Your task to perform on an android device: open app "WhatsApp Messenger" (install if not already installed) and go to login screen Image 0: 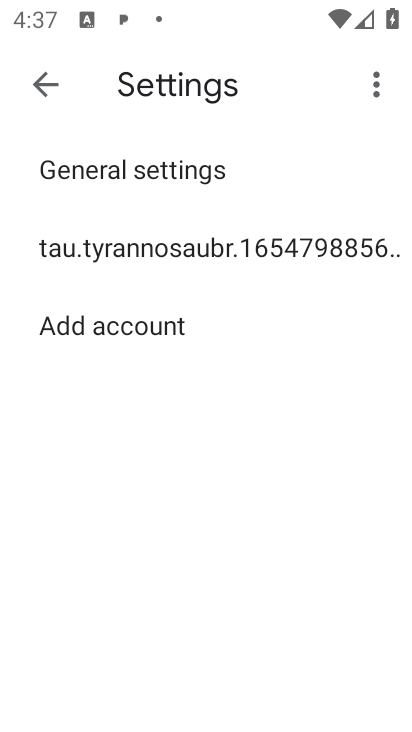
Step 0: press home button
Your task to perform on an android device: open app "WhatsApp Messenger" (install if not already installed) and go to login screen Image 1: 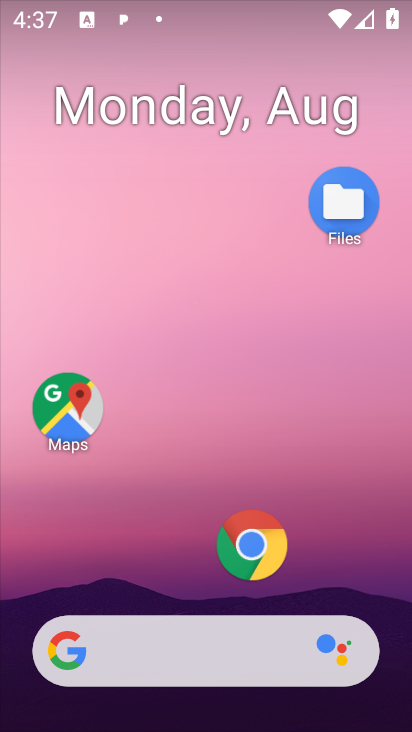
Step 1: drag from (130, 562) to (210, 34)
Your task to perform on an android device: open app "WhatsApp Messenger" (install if not already installed) and go to login screen Image 2: 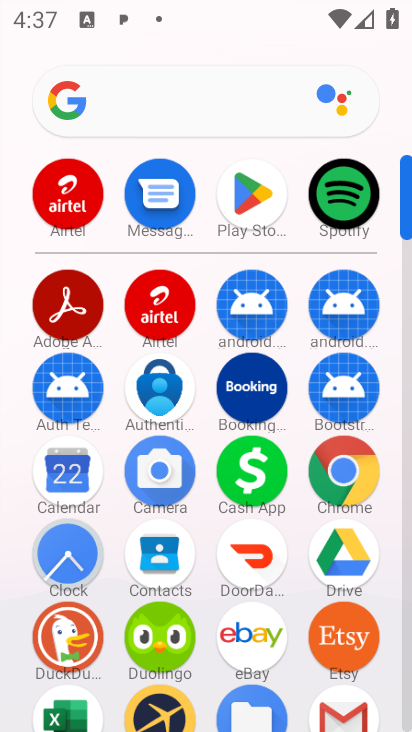
Step 2: click (264, 179)
Your task to perform on an android device: open app "WhatsApp Messenger" (install if not already installed) and go to login screen Image 3: 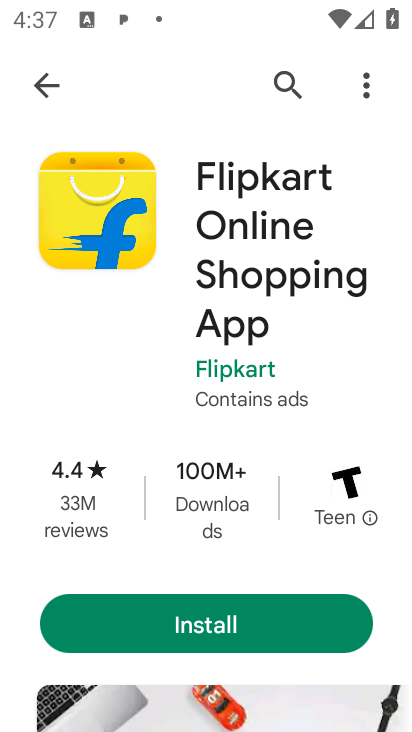
Step 3: click (286, 90)
Your task to perform on an android device: open app "WhatsApp Messenger" (install if not already installed) and go to login screen Image 4: 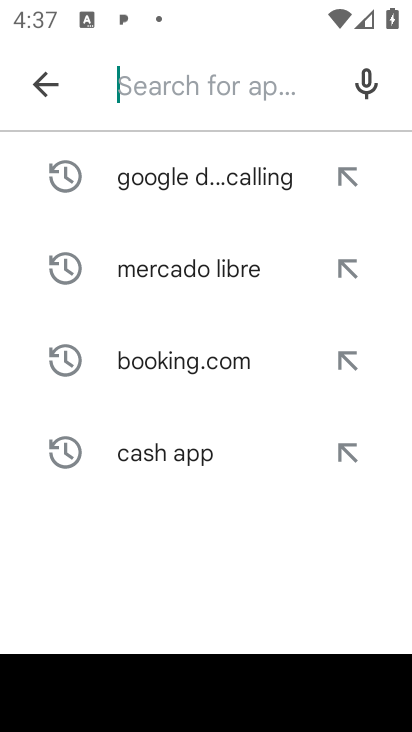
Step 4: click (210, 75)
Your task to perform on an android device: open app "WhatsApp Messenger" (install if not already installed) and go to login screen Image 5: 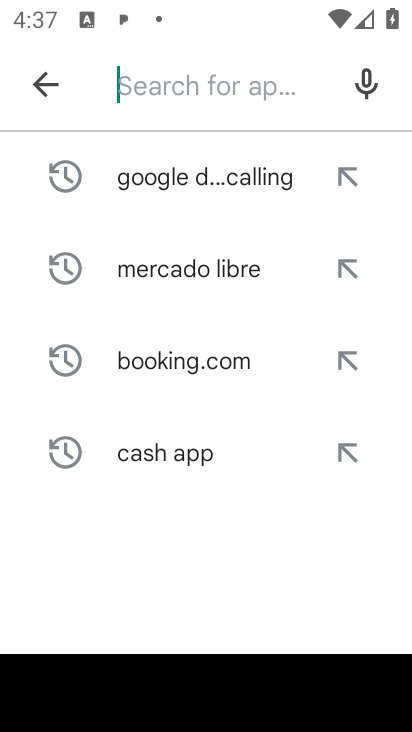
Step 5: type "WhatsApp Messenger"
Your task to perform on an android device: open app "WhatsApp Messenger" (install if not already installed) and go to login screen Image 6: 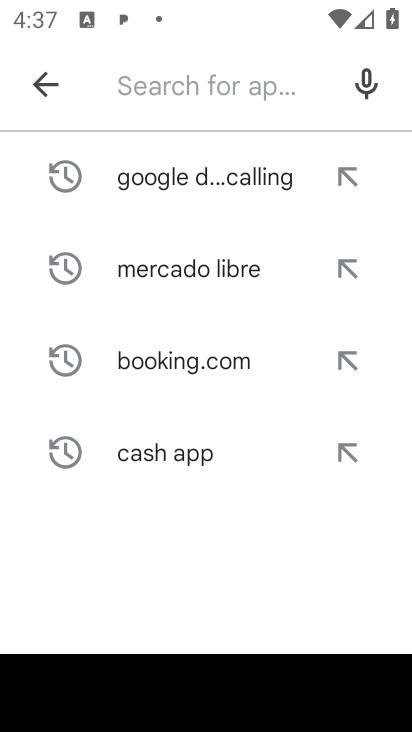
Step 6: click (310, 621)
Your task to perform on an android device: open app "WhatsApp Messenger" (install if not already installed) and go to login screen Image 7: 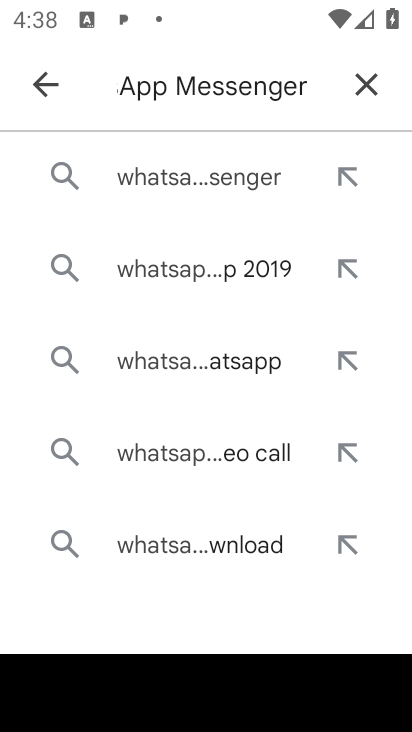
Step 7: click (209, 179)
Your task to perform on an android device: open app "WhatsApp Messenger" (install if not already installed) and go to login screen Image 8: 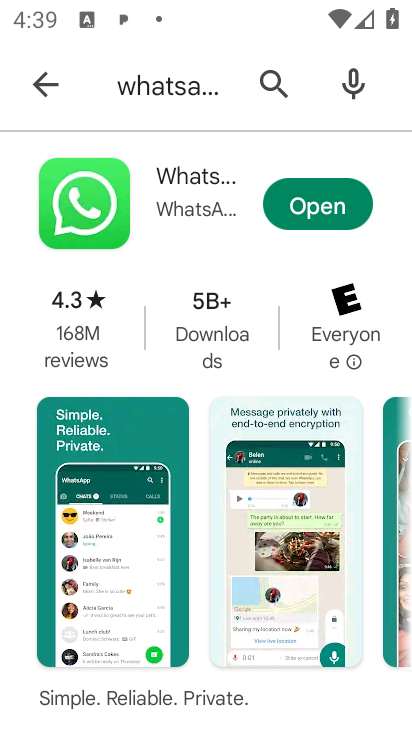
Step 8: click (304, 202)
Your task to perform on an android device: open app "WhatsApp Messenger" (install if not already installed) and go to login screen Image 9: 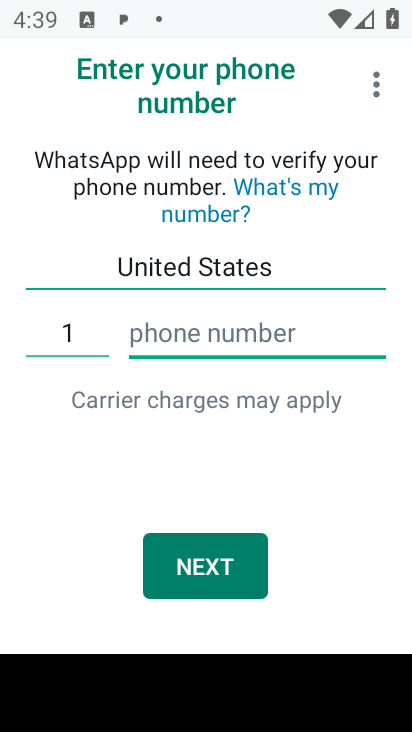
Step 9: task complete